Your task to perform on an android device: What's on my calendar today? Image 0: 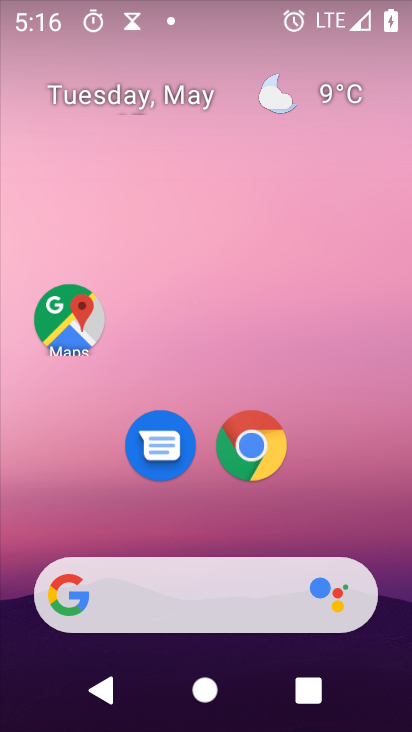
Step 0: drag from (201, 325) to (226, 12)
Your task to perform on an android device: What's on my calendar today? Image 1: 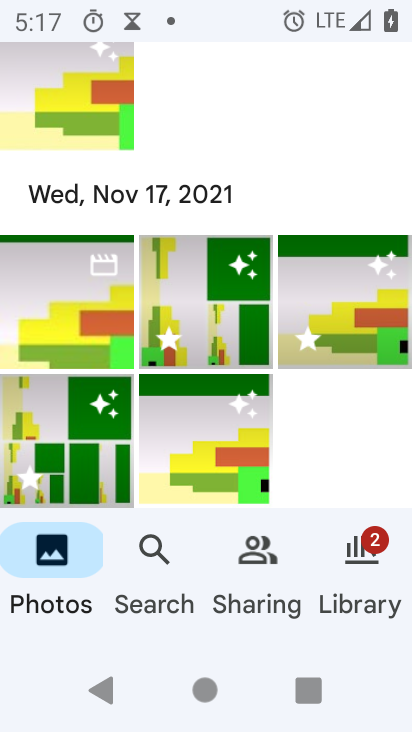
Step 1: press home button
Your task to perform on an android device: What's on my calendar today? Image 2: 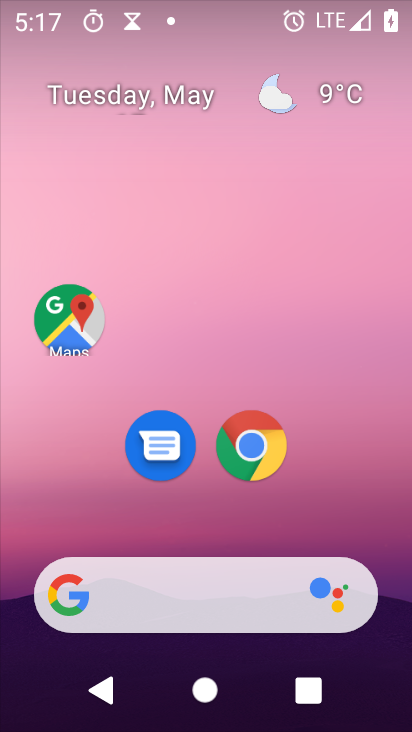
Step 2: drag from (242, 611) to (218, 0)
Your task to perform on an android device: What's on my calendar today? Image 3: 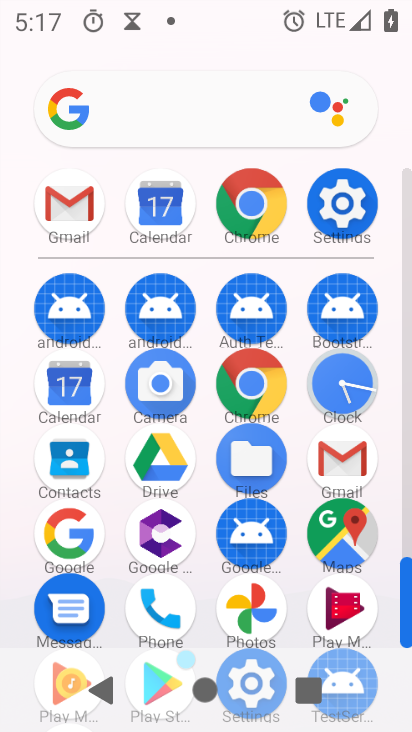
Step 3: click (75, 351)
Your task to perform on an android device: What's on my calendar today? Image 4: 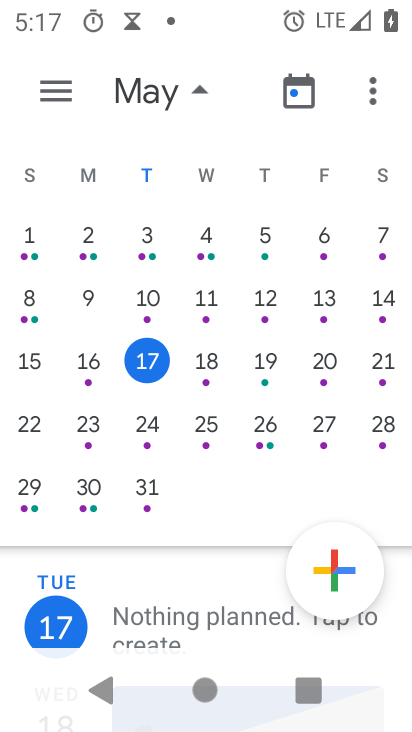
Step 4: task complete